Your task to perform on an android device: Show me the alarms in the clock app Image 0: 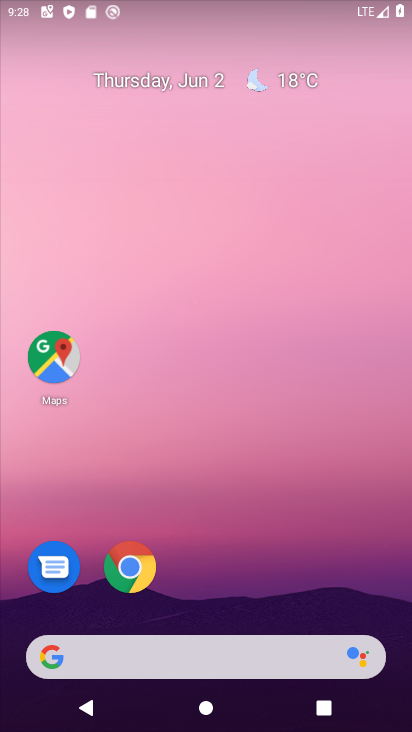
Step 0: press home button
Your task to perform on an android device: Show me the alarms in the clock app Image 1: 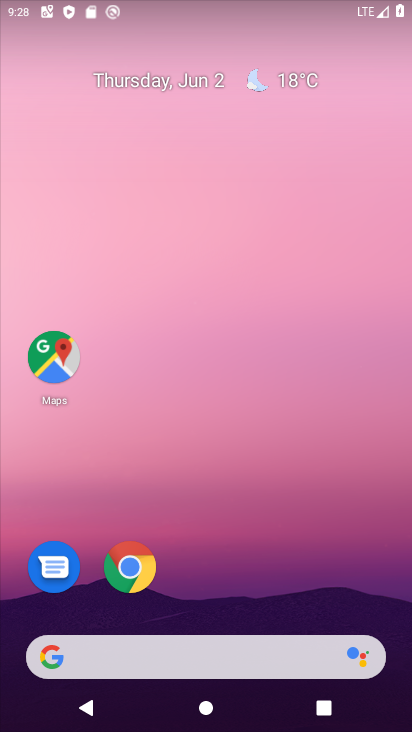
Step 1: drag from (200, 601) to (214, 63)
Your task to perform on an android device: Show me the alarms in the clock app Image 2: 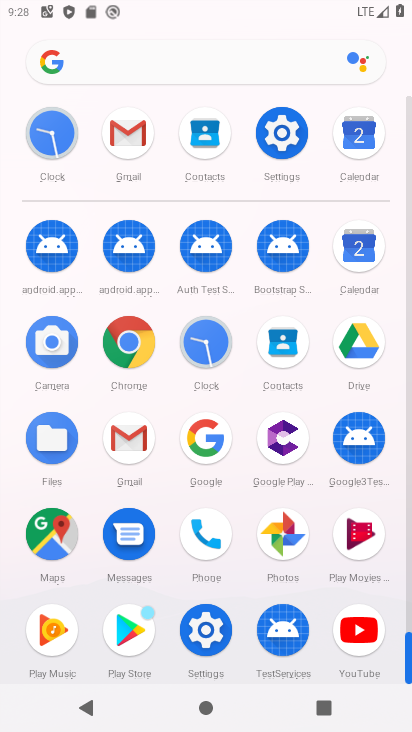
Step 2: click (210, 337)
Your task to perform on an android device: Show me the alarms in the clock app Image 3: 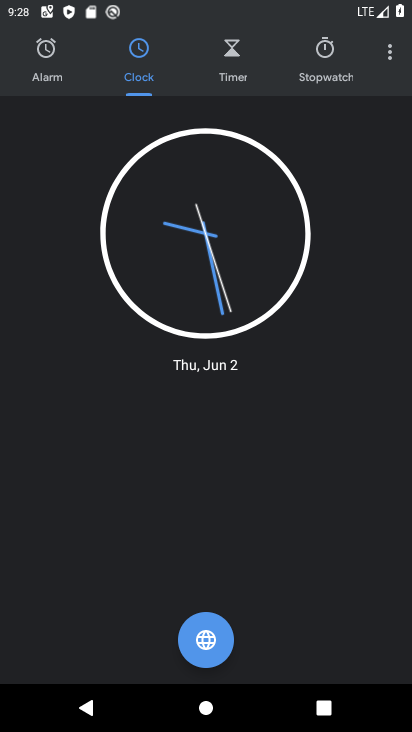
Step 3: click (49, 52)
Your task to perform on an android device: Show me the alarms in the clock app Image 4: 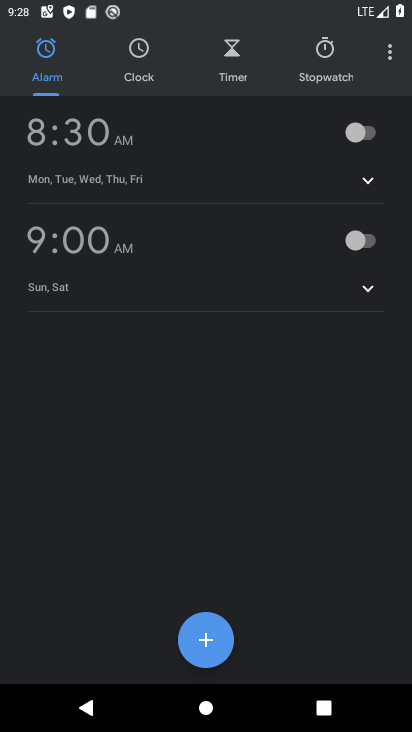
Step 4: click (371, 129)
Your task to perform on an android device: Show me the alarms in the clock app Image 5: 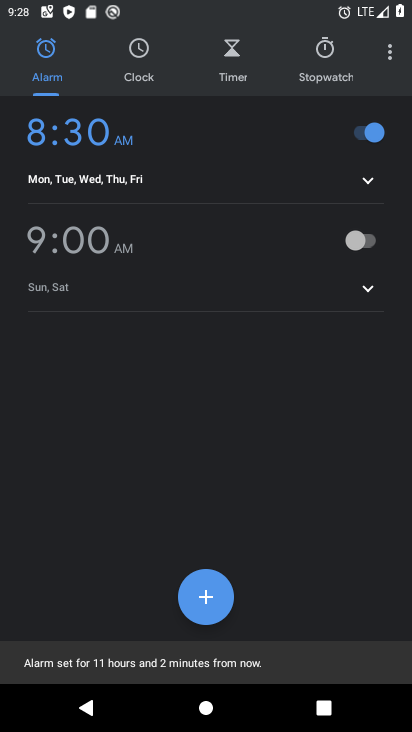
Step 5: task complete